Your task to perform on an android device: turn off location Image 0: 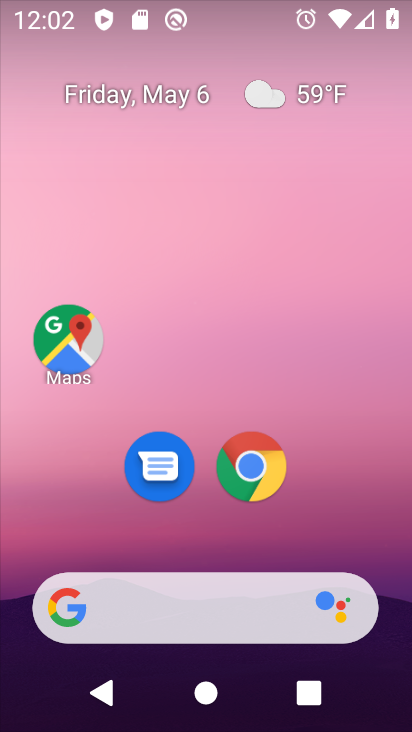
Step 0: drag from (190, 534) to (246, 144)
Your task to perform on an android device: turn off location Image 1: 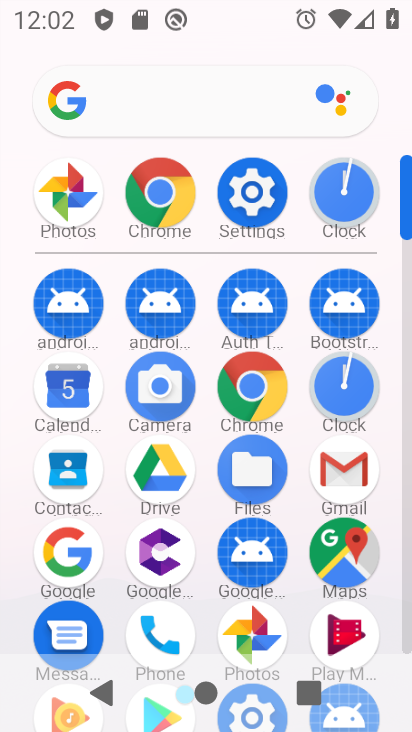
Step 1: click (252, 196)
Your task to perform on an android device: turn off location Image 2: 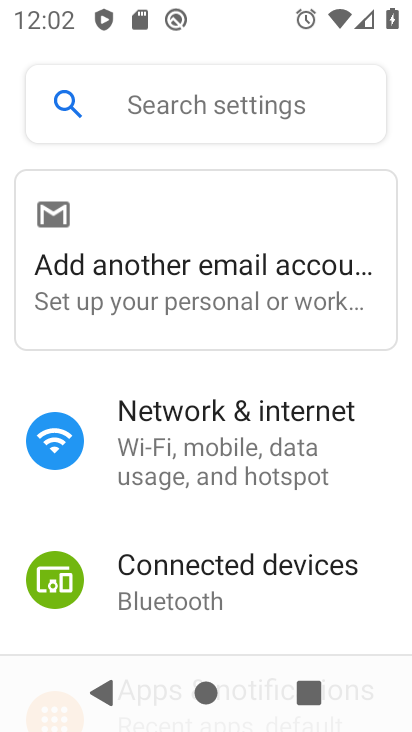
Step 2: drag from (237, 520) to (305, 192)
Your task to perform on an android device: turn off location Image 3: 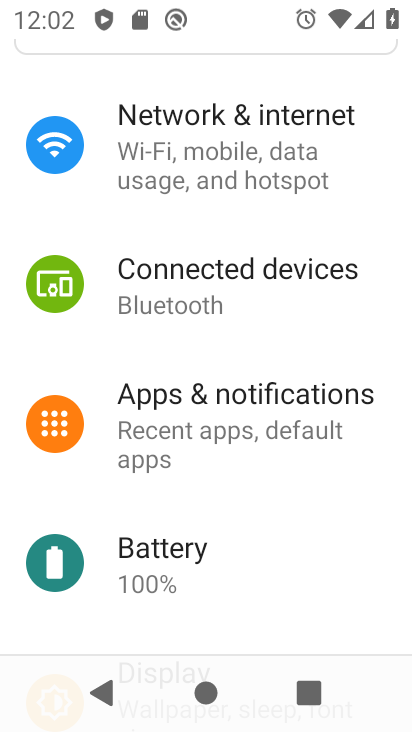
Step 3: drag from (216, 603) to (311, 248)
Your task to perform on an android device: turn off location Image 4: 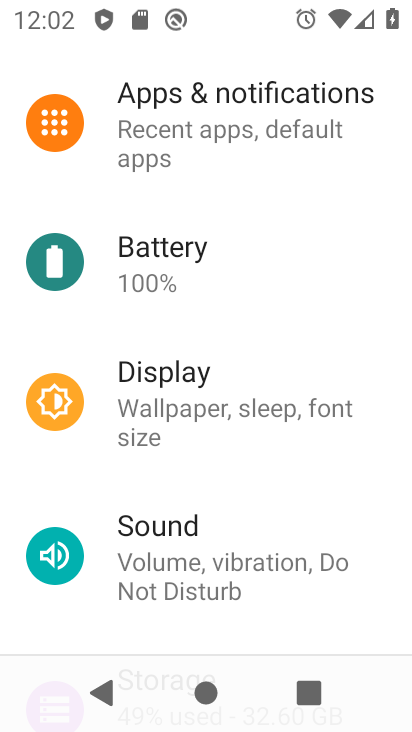
Step 4: drag from (233, 556) to (297, 252)
Your task to perform on an android device: turn off location Image 5: 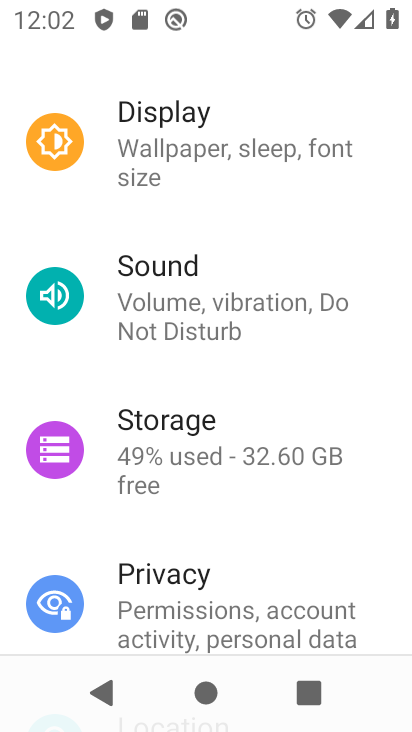
Step 5: drag from (261, 553) to (327, 268)
Your task to perform on an android device: turn off location Image 6: 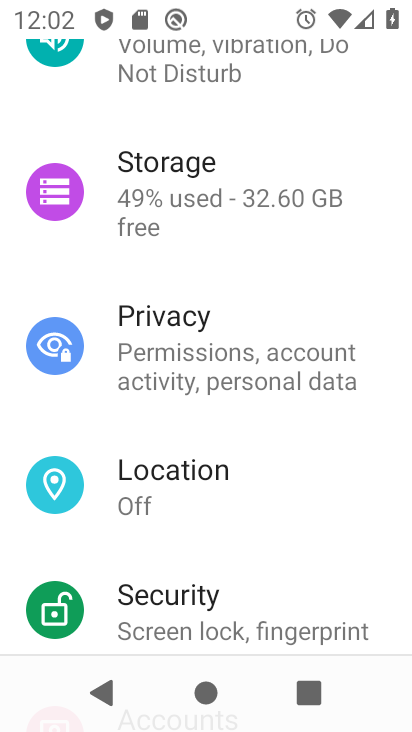
Step 6: click (149, 466)
Your task to perform on an android device: turn off location Image 7: 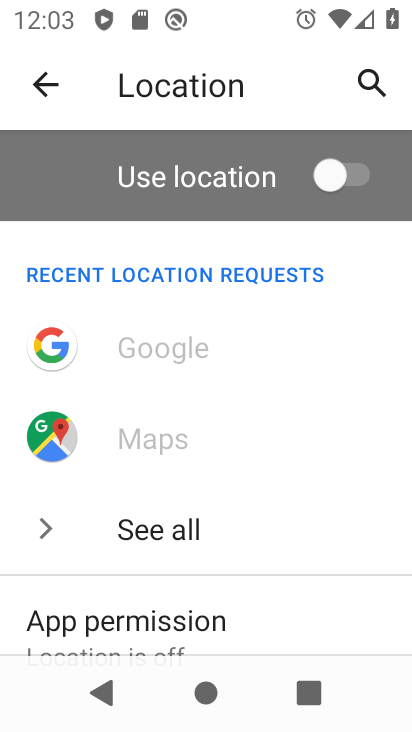
Step 7: task complete